Your task to perform on an android device: Set the phone to "Do not disturb". Image 0: 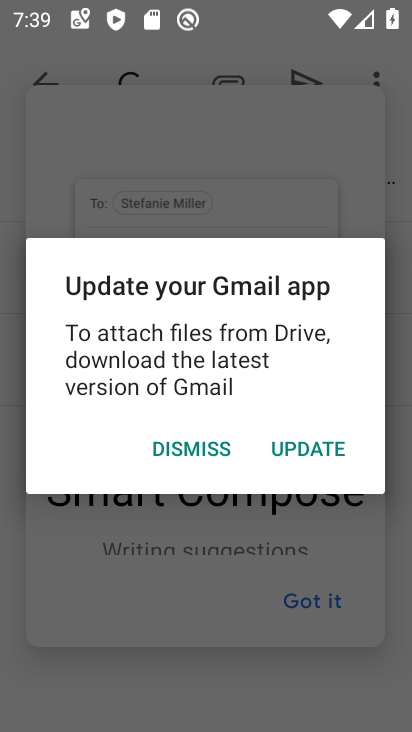
Step 0: press home button
Your task to perform on an android device: Set the phone to "Do not disturb". Image 1: 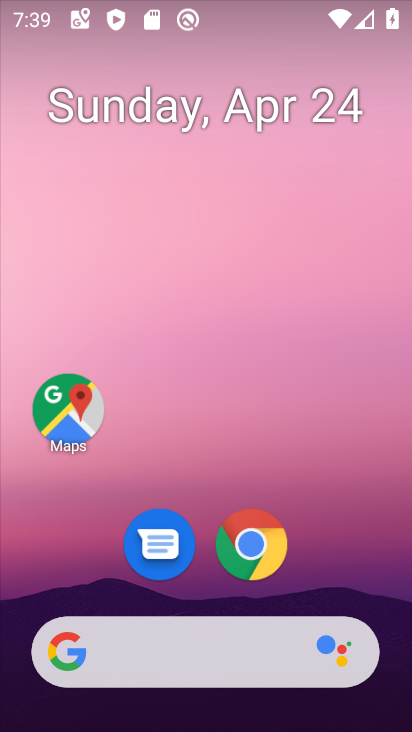
Step 1: drag from (165, 659) to (316, 31)
Your task to perform on an android device: Set the phone to "Do not disturb". Image 2: 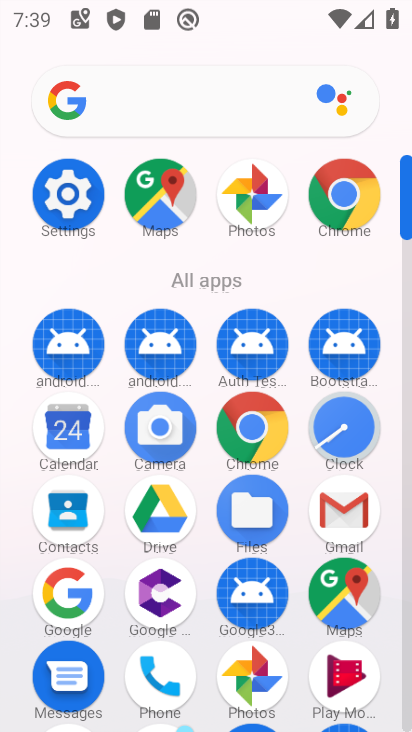
Step 2: click (72, 209)
Your task to perform on an android device: Set the phone to "Do not disturb". Image 3: 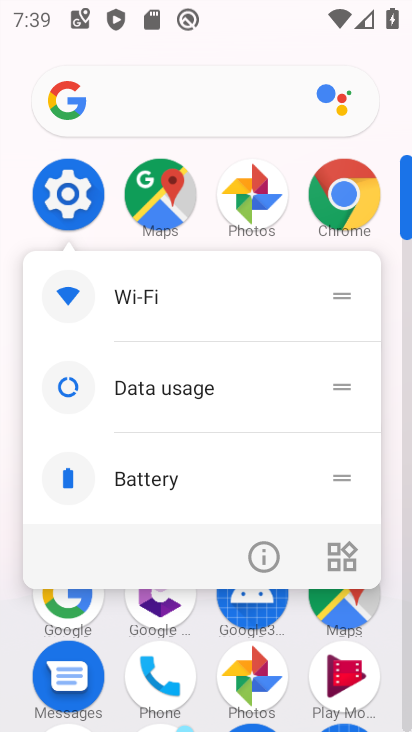
Step 3: click (72, 190)
Your task to perform on an android device: Set the phone to "Do not disturb". Image 4: 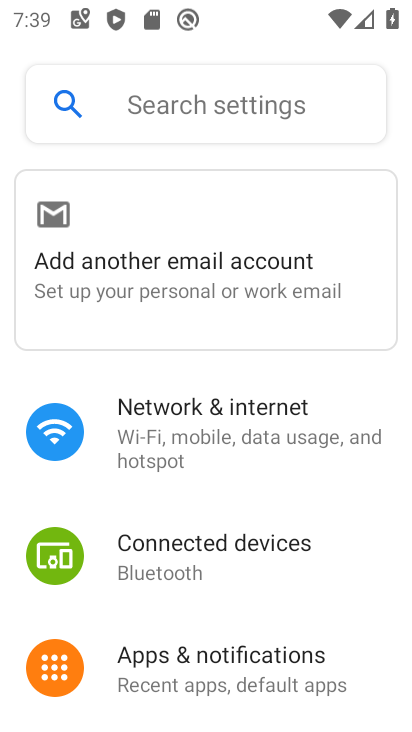
Step 4: drag from (164, 631) to (297, 232)
Your task to perform on an android device: Set the phone to "Do not disturb". Image 5: 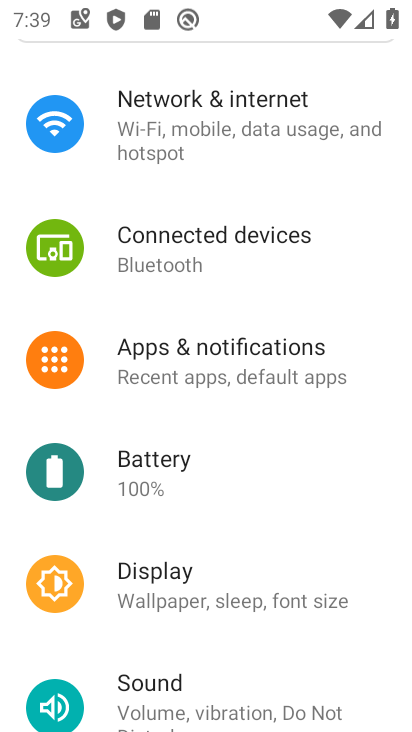
Step 5: click (174, 691)
Your task to perform on an android device: Set the phone to "Do not disturb". Image 6: 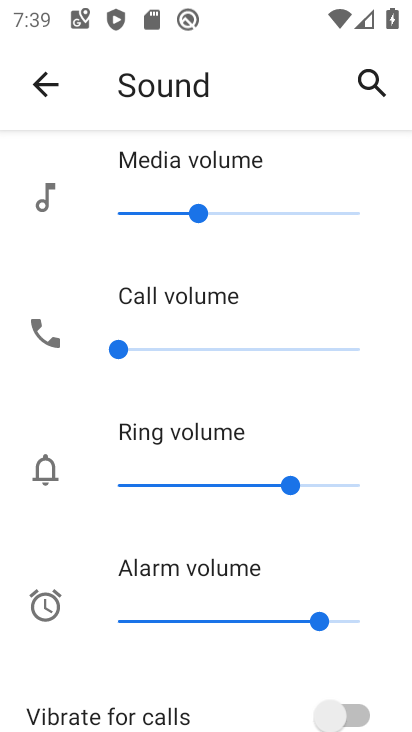
Step 6: drag from (182, 673) to (346, 99)
Your task to perform on an android device: Set the phone to "Do not disturb". Image 7: 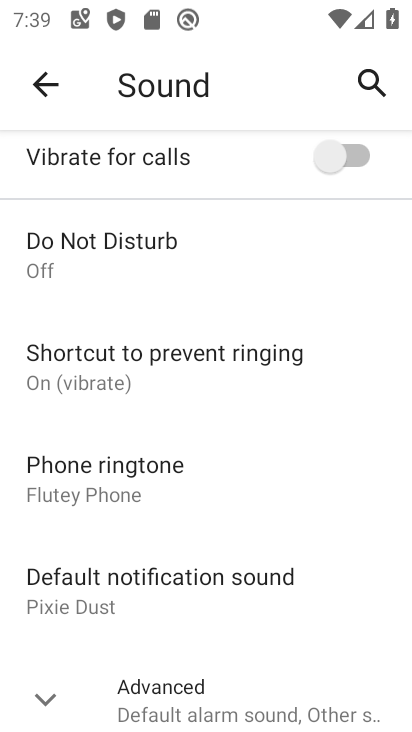
Step 7: click (77, 247)
Your task to perform on an android device: Set the phone to "Do not disturb". Image 8: 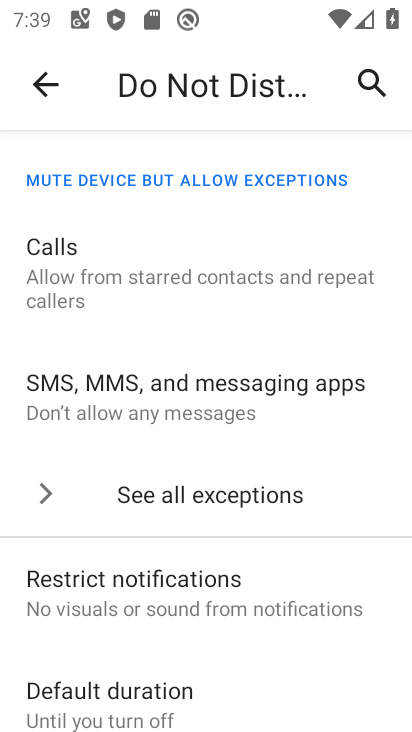
Step 8: drag from (161, 656) to (320, 145)
Your task to perform on an android device: Set the phone to "Do not disturb". Image 9: 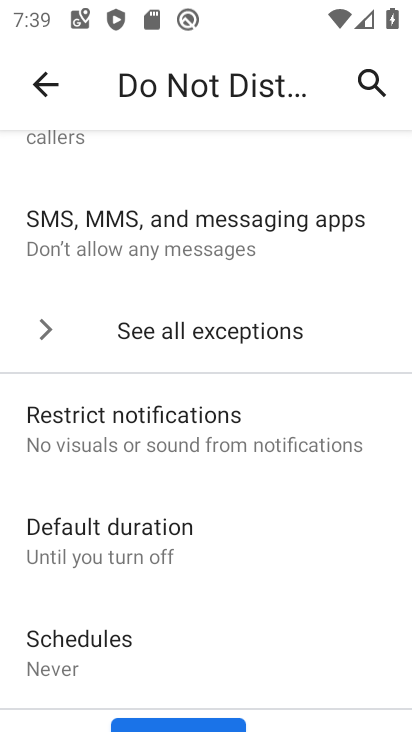
Step 9: drag from (193, 571) to (331, 103)
Your task to perform on an android device: Set the phone to "Do not disturb". Image 10: 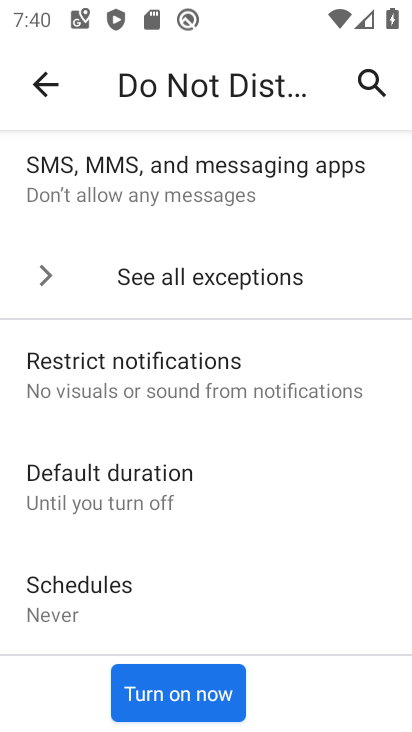
Step 10: click (179, 695)
Your task to perform on an android device: Set the phone to "Do not disturb". Image 11: 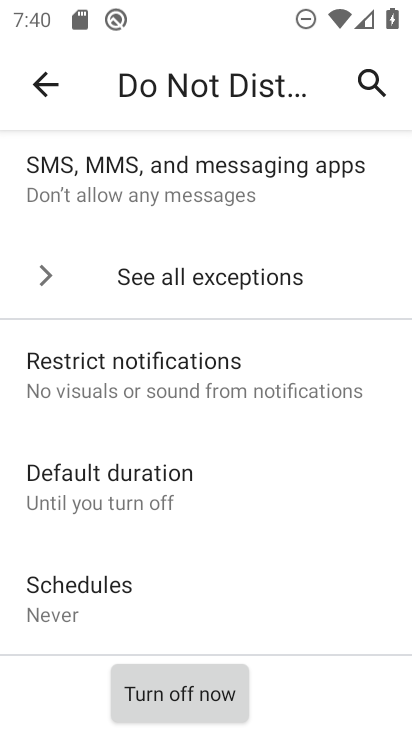
Step 11: task complete